Your task to perform on an android device: turn pop-ups on in chrome Image 0: 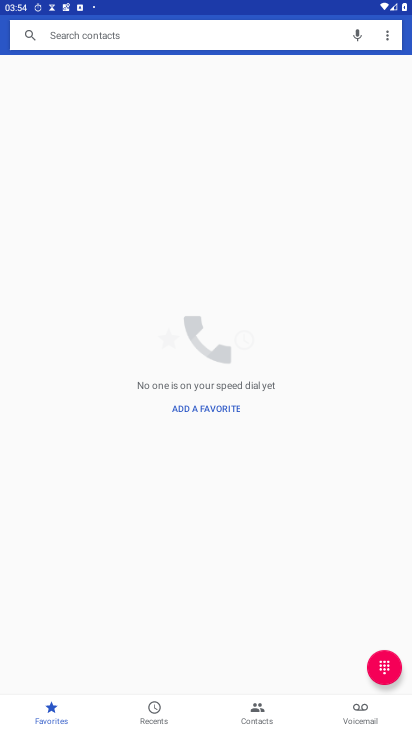
Step 0: press home button
Your task to perform on an android device: turn pop-ups on in chrome Image 1: 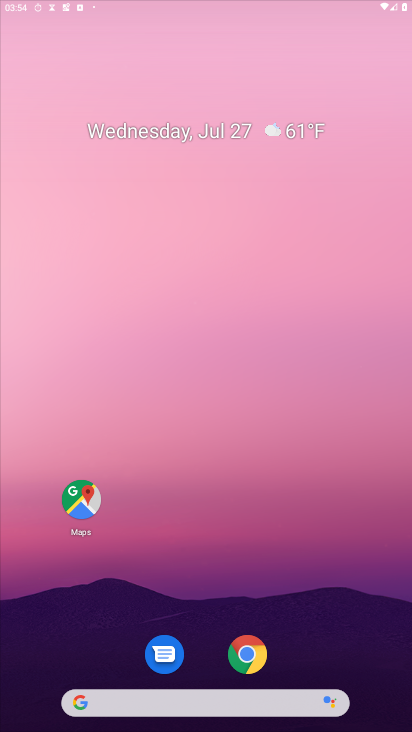
Step 1: drag from (319, 609) to (299, 107)
Your task to perform on an android device: turn pop-ups on in chrome Image 2: 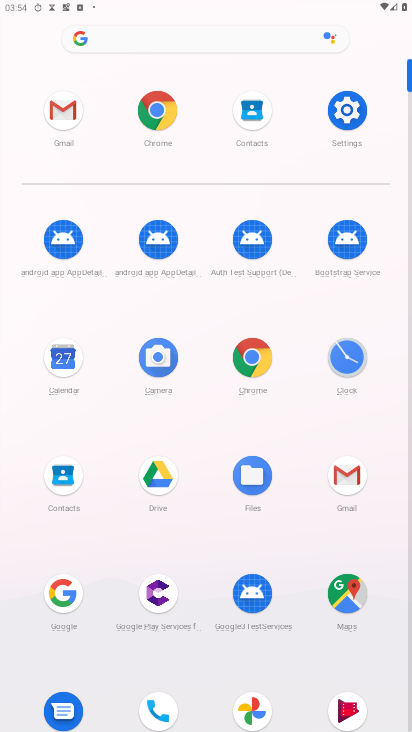
Step 2: click (249, 357)
Your task to perform on an android device: turn pop-ups on in chrome Image 3: 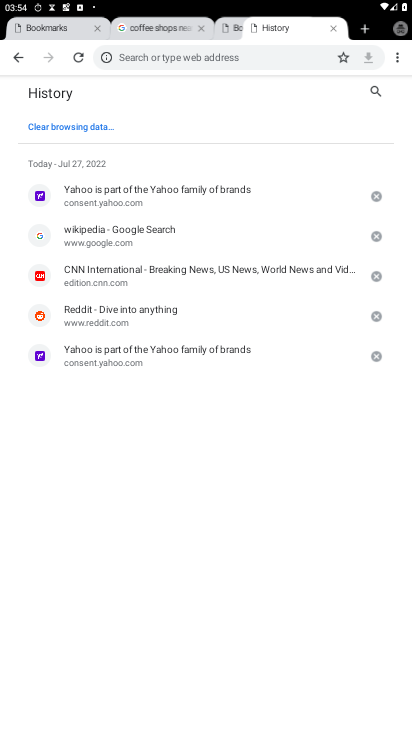
Step 3: click (400, 52)
Your task to perform on an android device: turn pop-ups on in chrome Image 4: 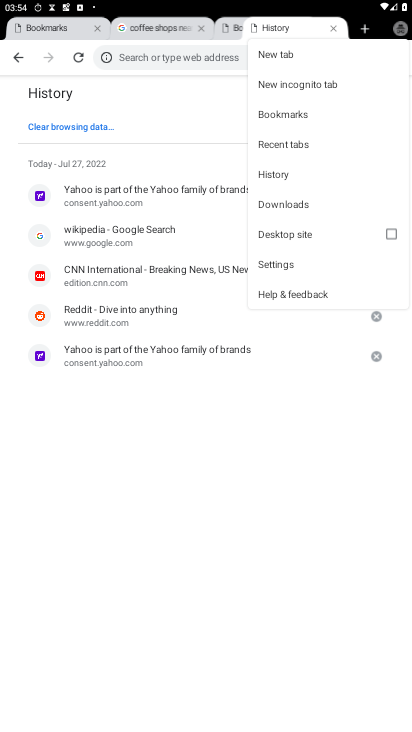
Step 4: click (285, 258)
Your task to perform on an android device: turn pop-ups on in chrome Image 5: 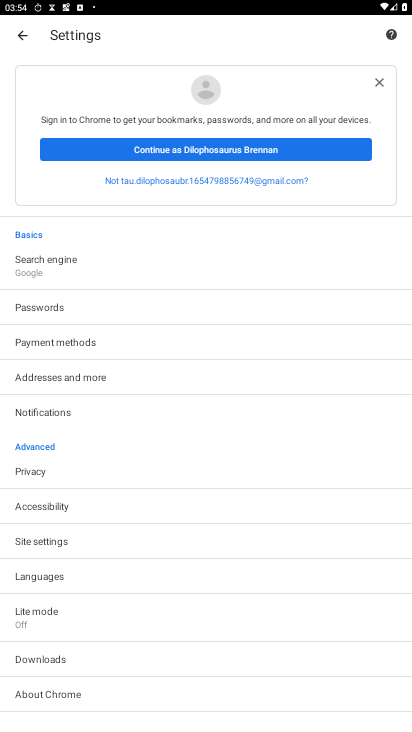
Step 5: click (54, 543)
Your task to perform on an android device: turn pop-ups on in chrome Image 6: 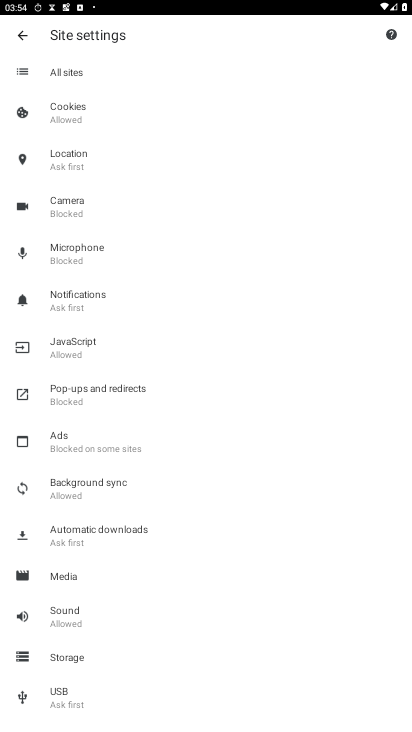
Step 6: click (105, 393)
Your task to perform on an android device: turn pop-ups on in chrome Image 7: 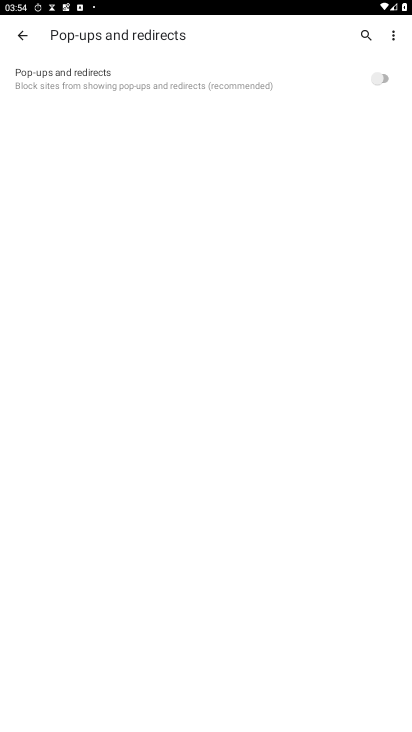
Step 7: task complete